Your task to perform on an android device: Empty the shopping cart on ebay.com. Search for usb-c to usb-a on ebay.com, select the first entry, add it to the cart, then select checkout. Image 0: 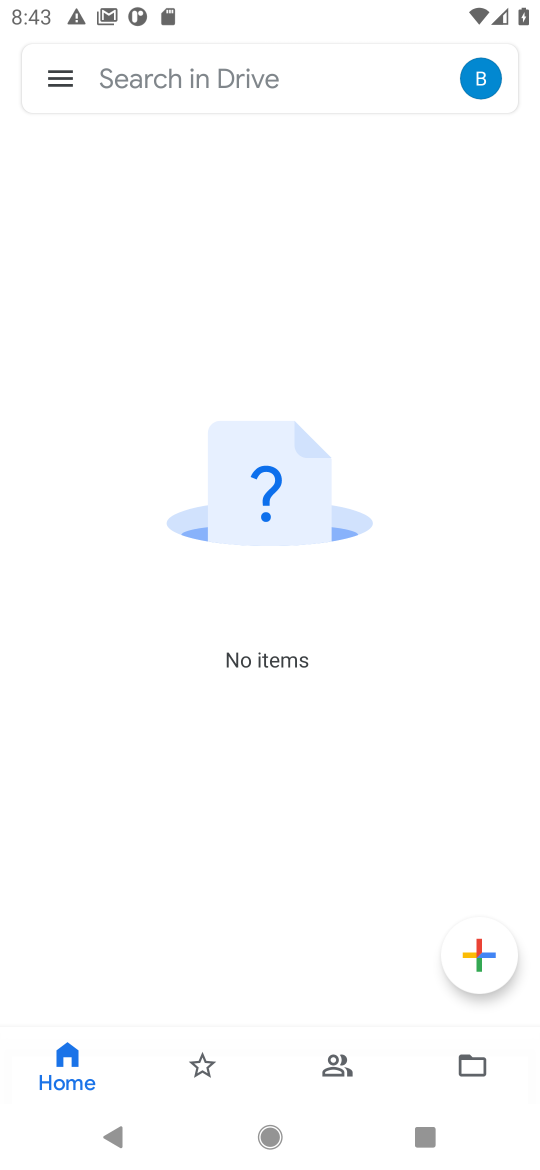
Step 0: press home button
Your task to perform on an android device: Empty the shopping cart on ebay.com. Search for usb-c to usb-a on ebay.com, select the first entry, add it to the cart, then select checkout. Image 1: 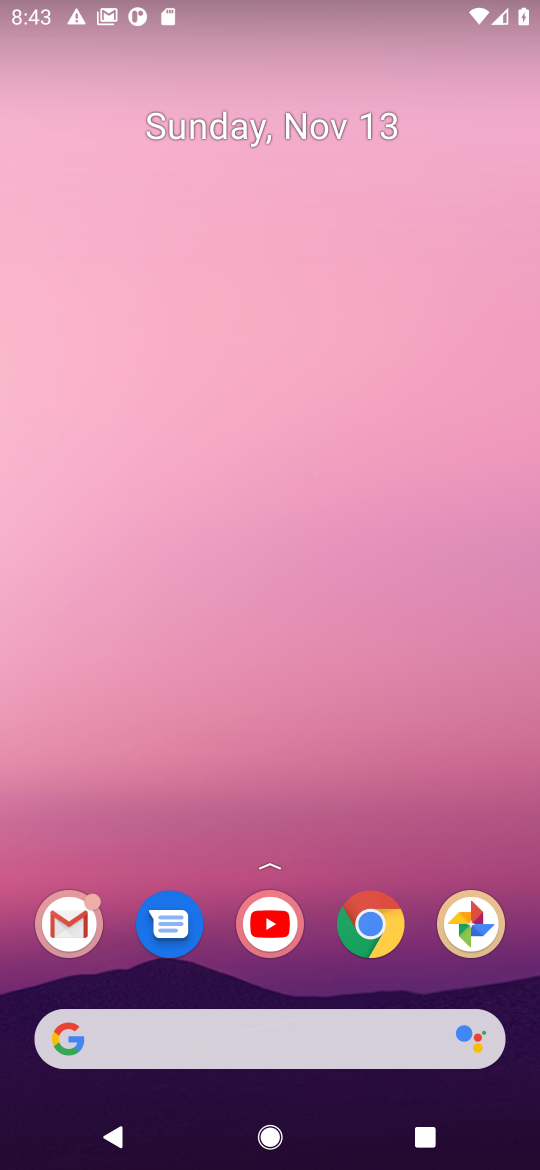
Step 1: click (356, 925)
Your task to perform on an android device: Empty the shopping cart on ebay.com. Search for usb-c to usb-a on ebay.com, select the first entry, add it to the cart, then select checkout. Image 2: 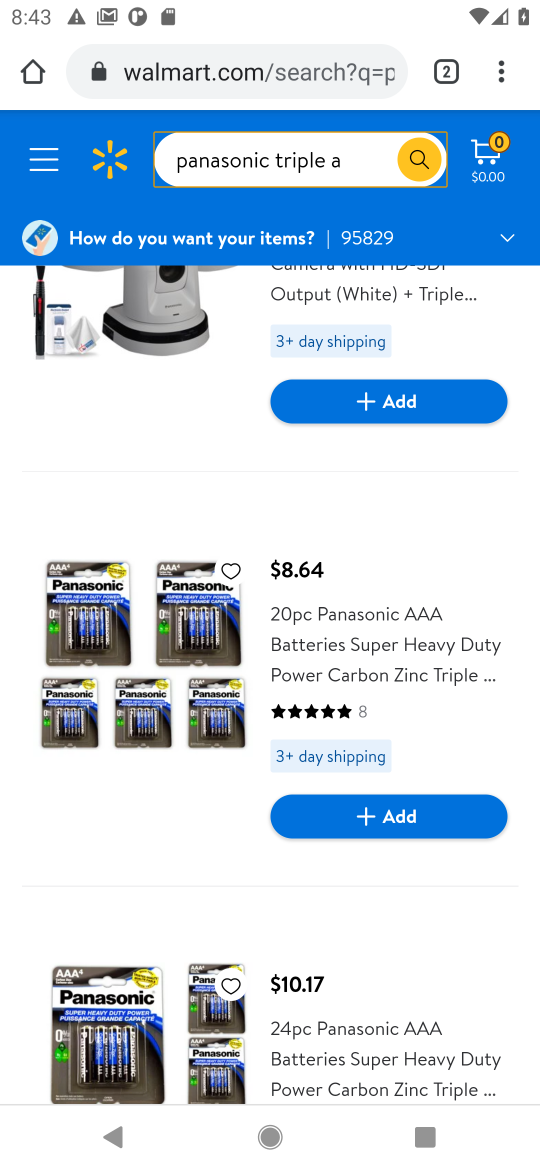
Step 2: click (233, 82)
Your task to perform on an android device: Empty the shopping cart on ebay.com. Search for usb-c to usb-a on ebay.com, select the first entry, add it to the cart, then select checkout. Image 3: 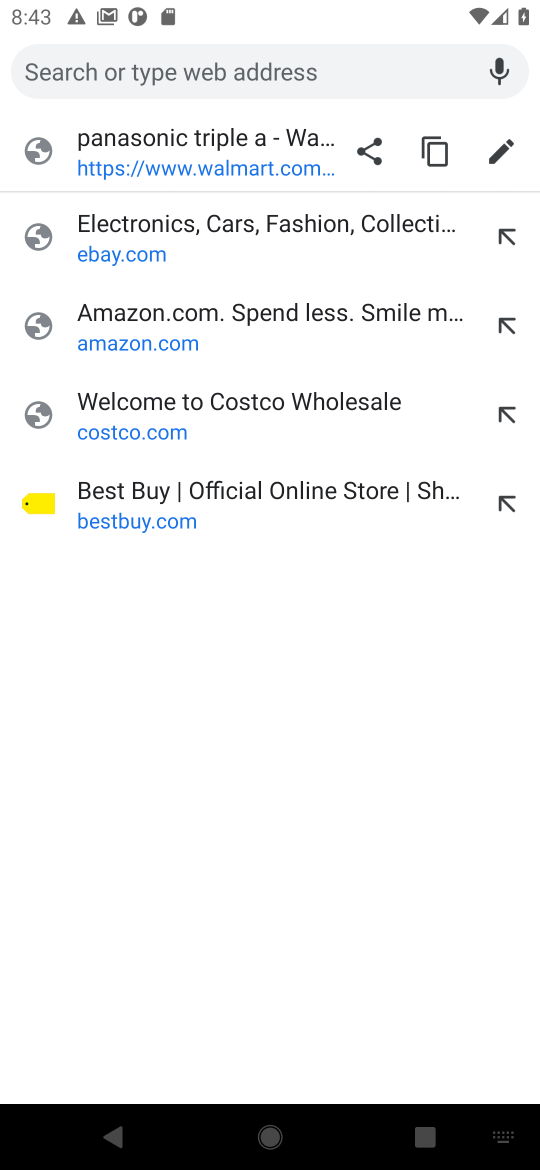
Step 3: click (129, 255)
Your task to perform on an android device: Empty the shopping cart on ebay.com. Search for usb-c to usb-a on ebay.com, select the first entry, add it to the cart, then select checkout. Image 4: 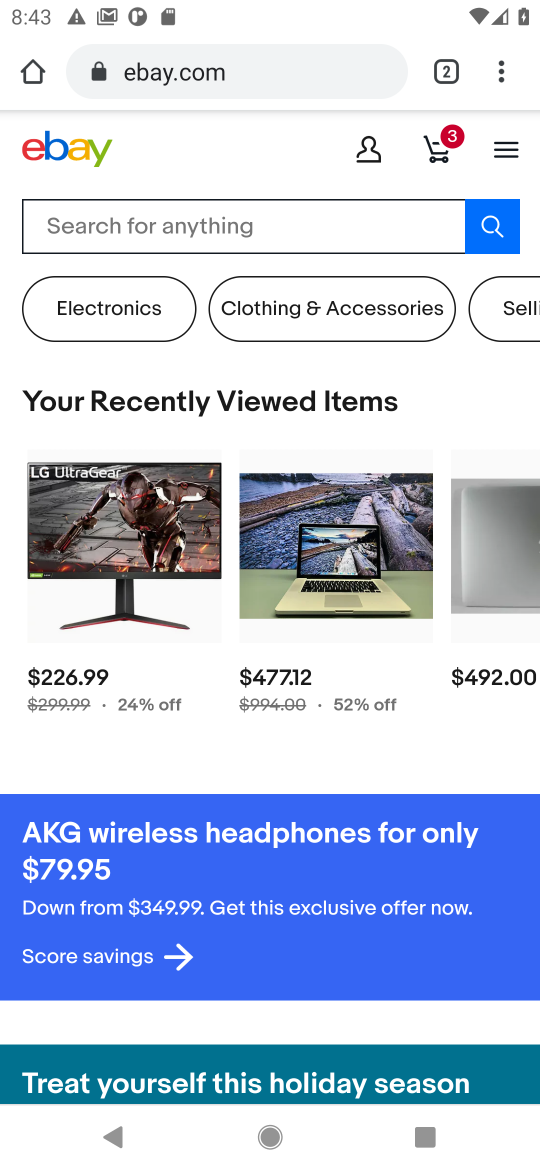
Step 4: click (434, 153)
Your task to perform on an android device: Empty the shopping cart on ebay.com. Search for usb-c to usb-a on ebay.com, select the first entry, add it to the cart, then select checkout. Image 5: 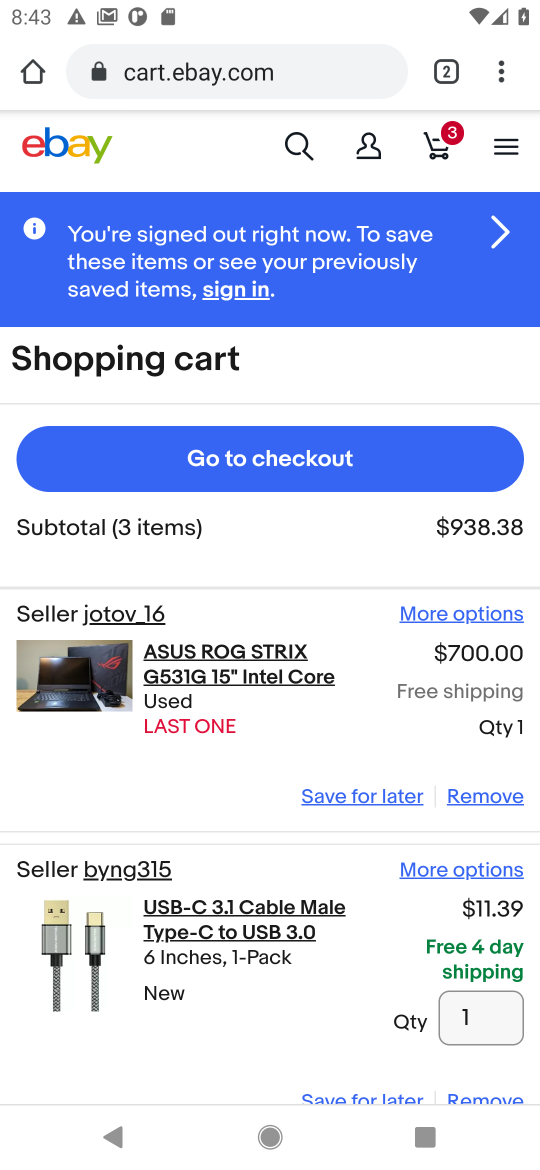
Step 5: click (476, 802)
Your task to perform on an android device: Empty the shopping cart on ebay.com. Search for usb-c to usb-a on ebay.com, select the first entry, add it to the cart, then select checkout. Image 6: 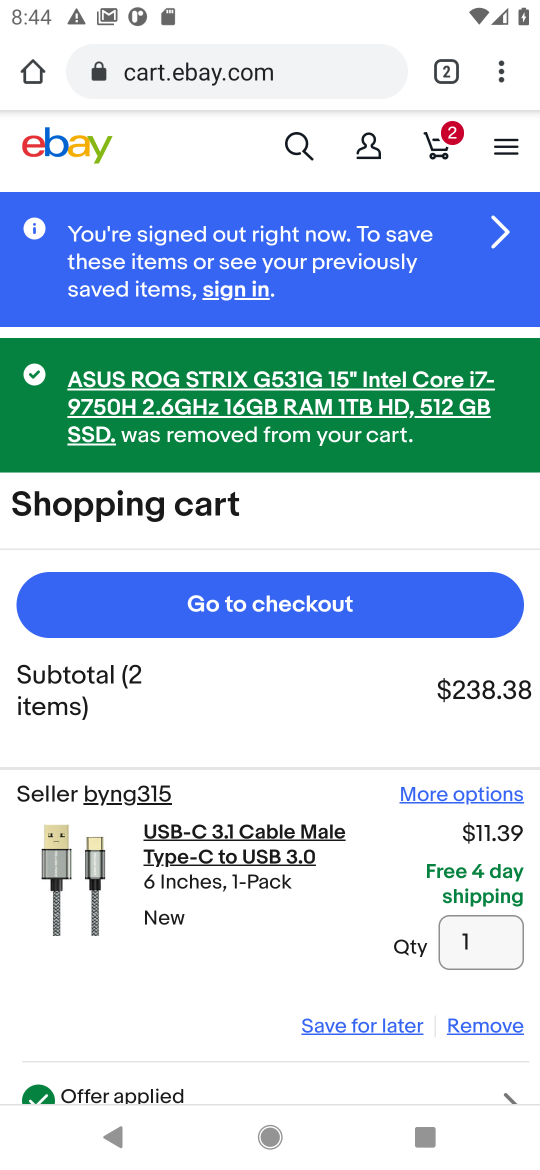
Step 6: click (474, 1018)
Your task to perform on an android device: Empty the shopping cart on ebay.com. Search for usb-c to usb-a on ebay.com, select the first entry, add it to the cart, then select checkout. Image 7: 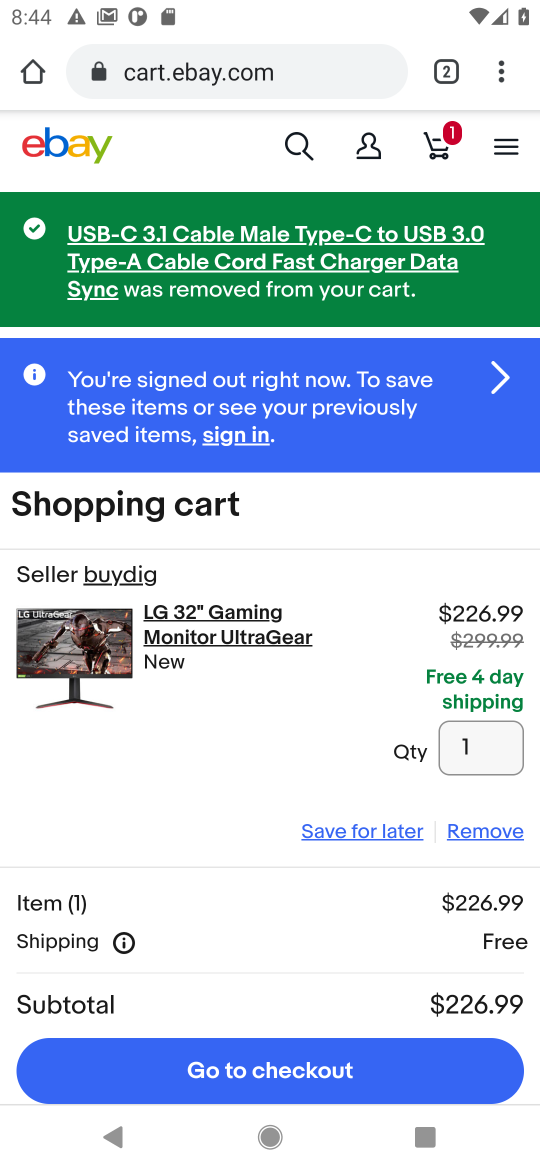
Step 7: click (485, 834)
Your task to perform on an android device: Empty the shopping cart on ebay.com. Search for usb-c to usb-a on ebay.com, select the first entry, add it to the cart, then select checkout. Image 8: 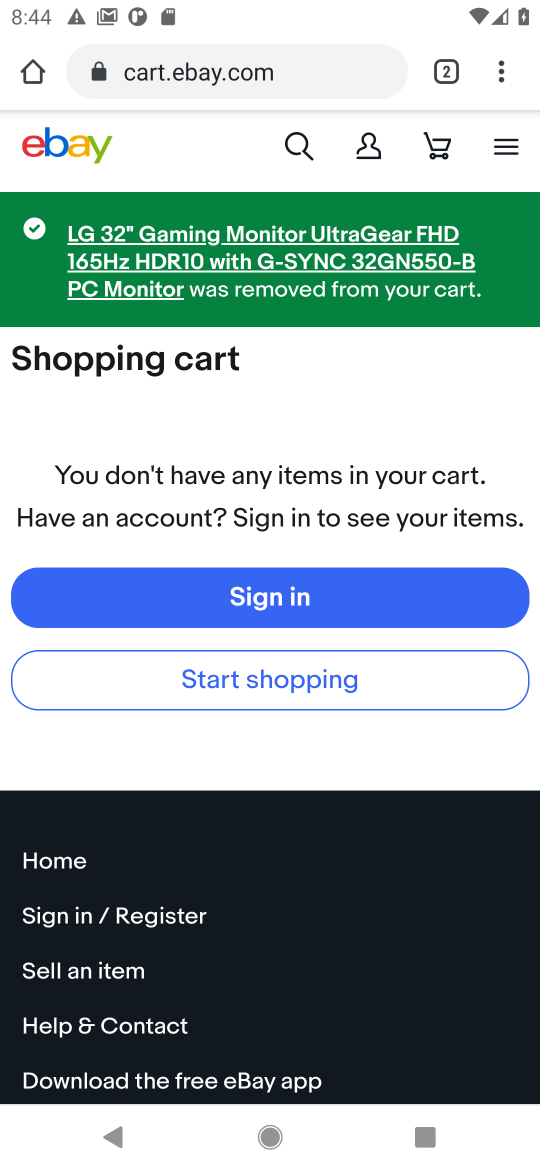
Step 8: click (302, 148)
Your task to perform on an android device: Empty the shopping cart on ebay.com. Search for usb-c to usb-a on ebay.com, select the first entry, add it to the cart, then select checkout. Image 9: 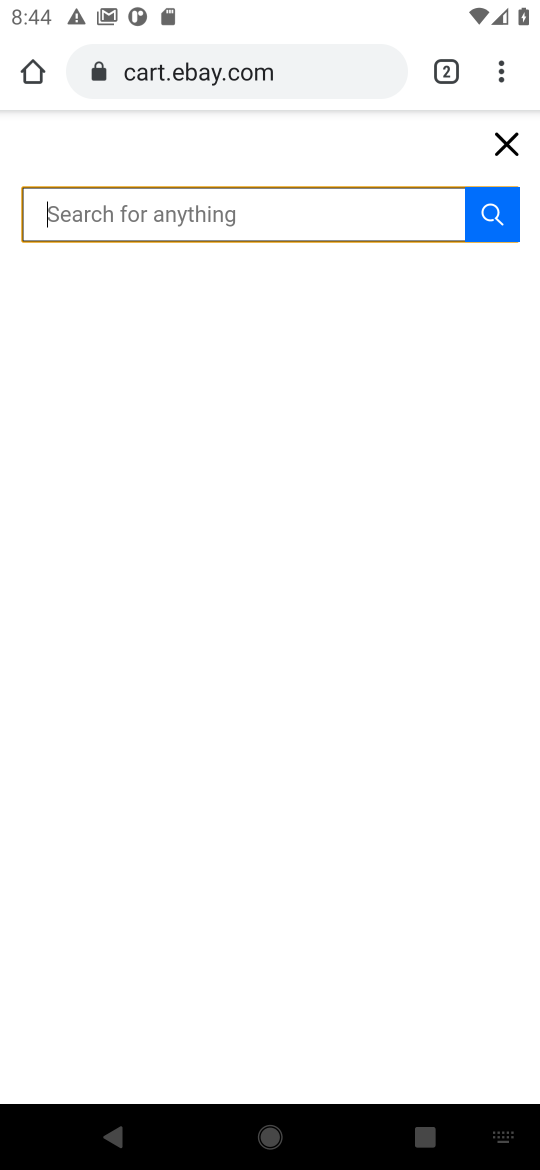
Step 9: type " usb-c to usb-a"
Your task to perform on an android device: Empty the shopping cart on ebay.com. Search for usb-c to usb-a on ebay.com, select the first entry, add it to the cart, then select checkout. Image 10: 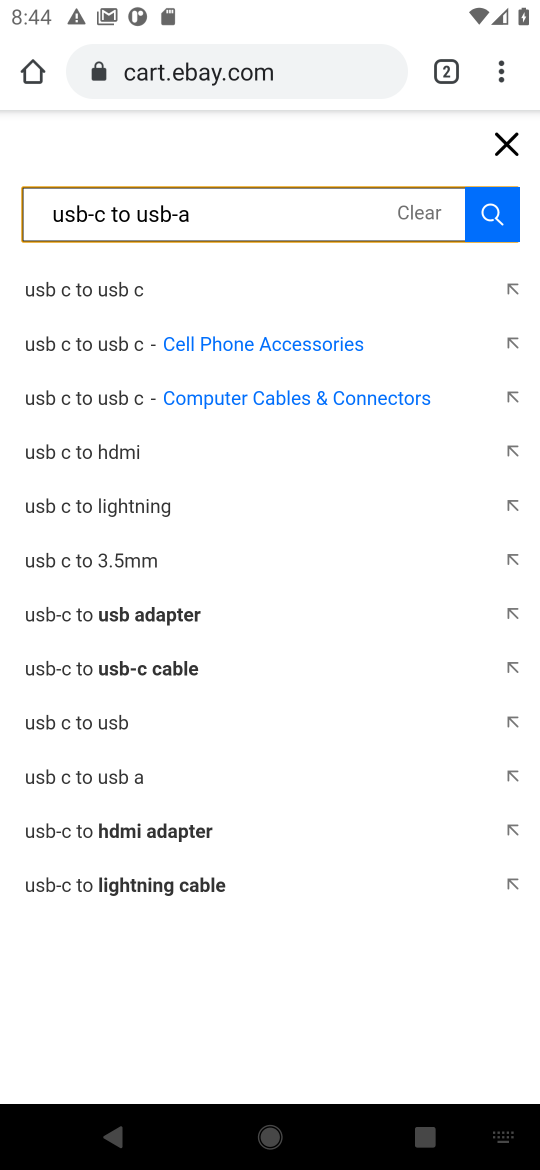
Step 10: click (123, 784)
Your task to perform on an android device: Empty the shopping cart on ebay.com. Search for usb-c to usb-a on ebay.com, select the first entry, add it to the cart, then select checkout. Image 11: 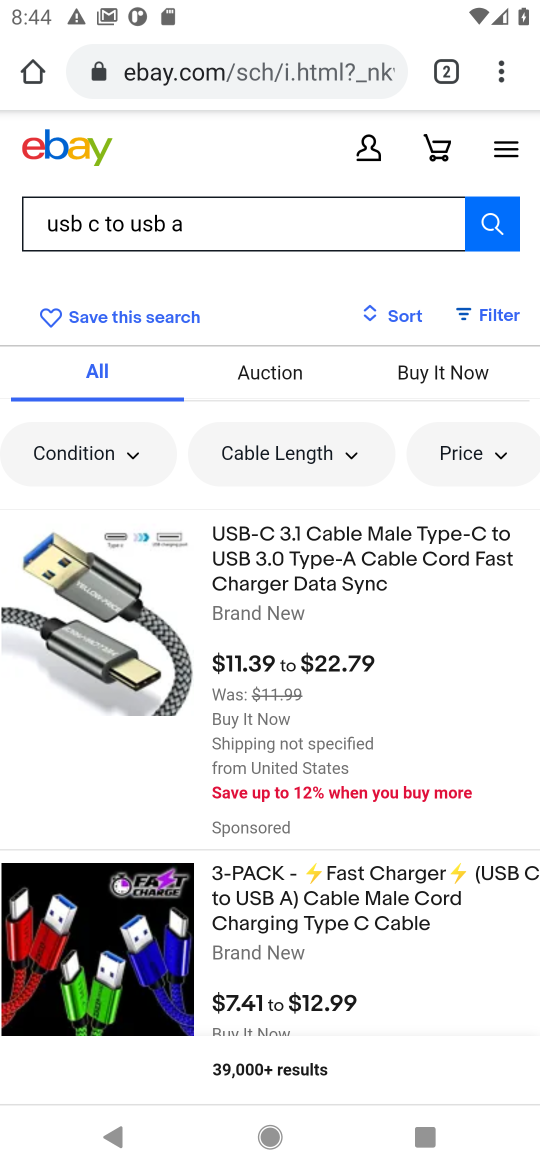
Step 11: click (94, 639)
Your task to perform on an android device: Empty the shopping cart on ebay.com. Search for usb-c to usb-a on ebay.com, select the first entry, add it to the cart, then select checkout. Image 12: 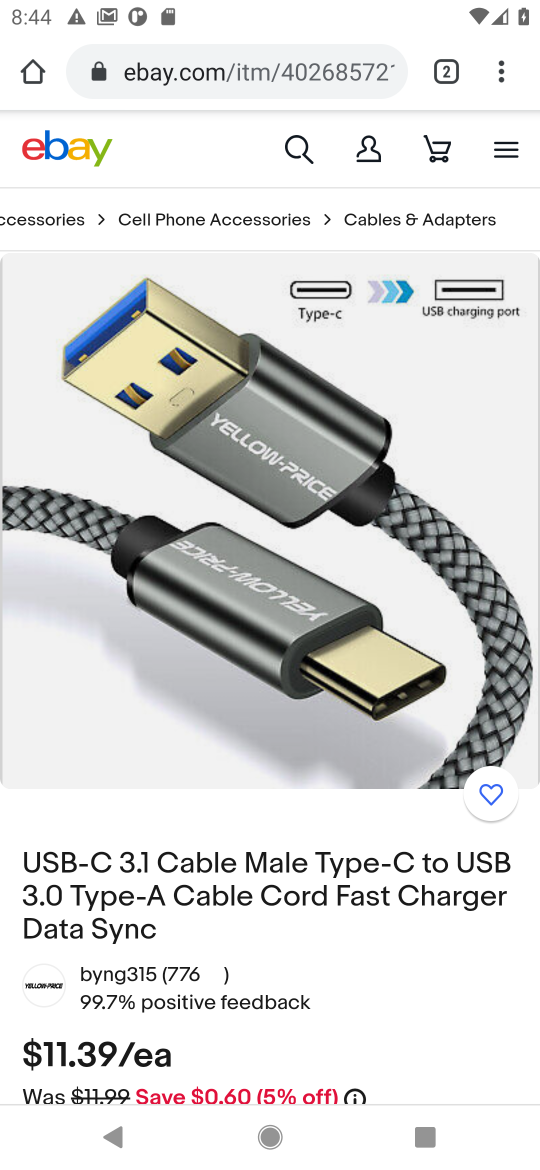
Step 12: drag from (366, 729) to (330, 215)
Your task to perform on an android device: Empty the shopping cart on ebay.com. Search for usb-c to usb-a on ebay.com, select the first entry, add it to the cart, then select checkout. Image 13: 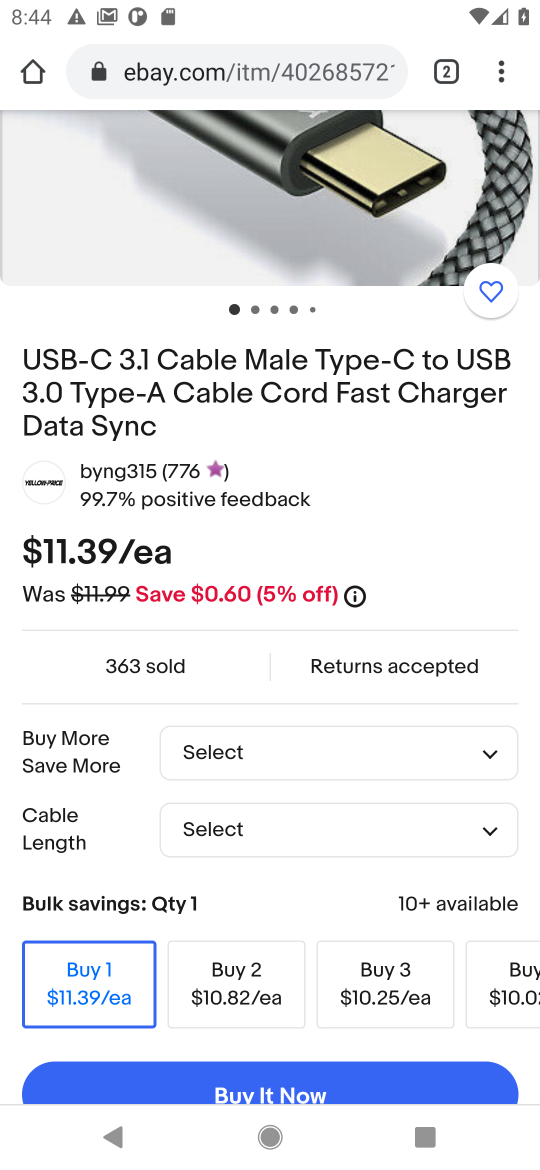
Step 13: drag from (300, 682) to (264, 280)
Your task to perform on an android device: Empty the shopping cart on ebay.com. Search for usb-c to usb-a on ebay.com, select the first entry, add it to the cart, then select checkout. Image 14: 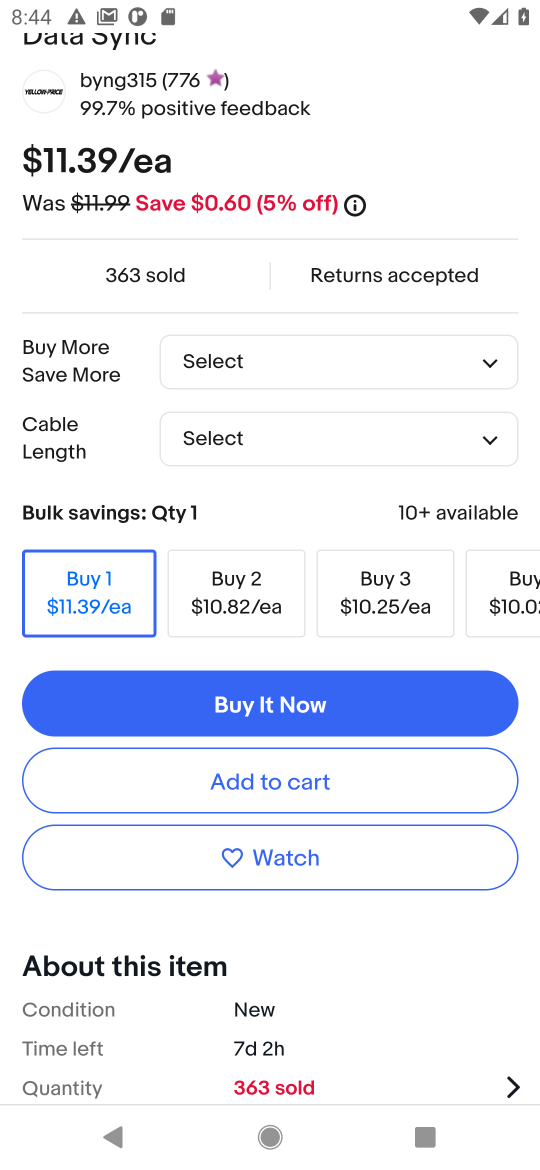
Step 14: click (482, 366)
Your task to perform on an android device: Empty the shopping cart on ebay.com. Search for usb-c to usb-a on ebay.com, select the first entry, add it to the cart, then select checkout. Image 15: 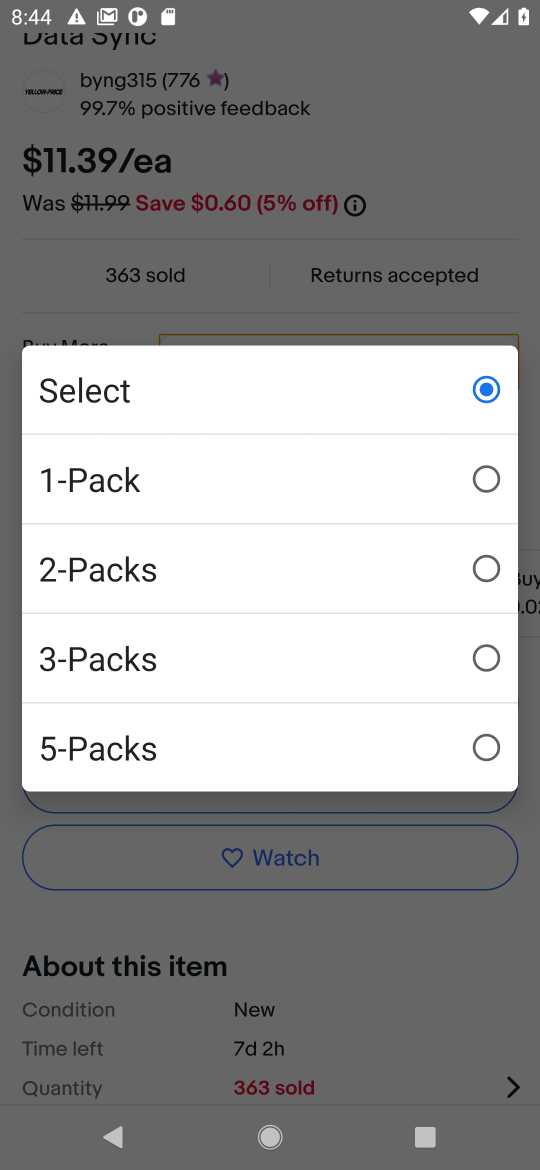
Step 15: click (122, 492)
Your task to perform on an android device: Empty the shopping cart on ebay.com. Search for usb-c to usb-a on ebay.com, select the first entry, add it to the cart, then select checkout. Image 16: 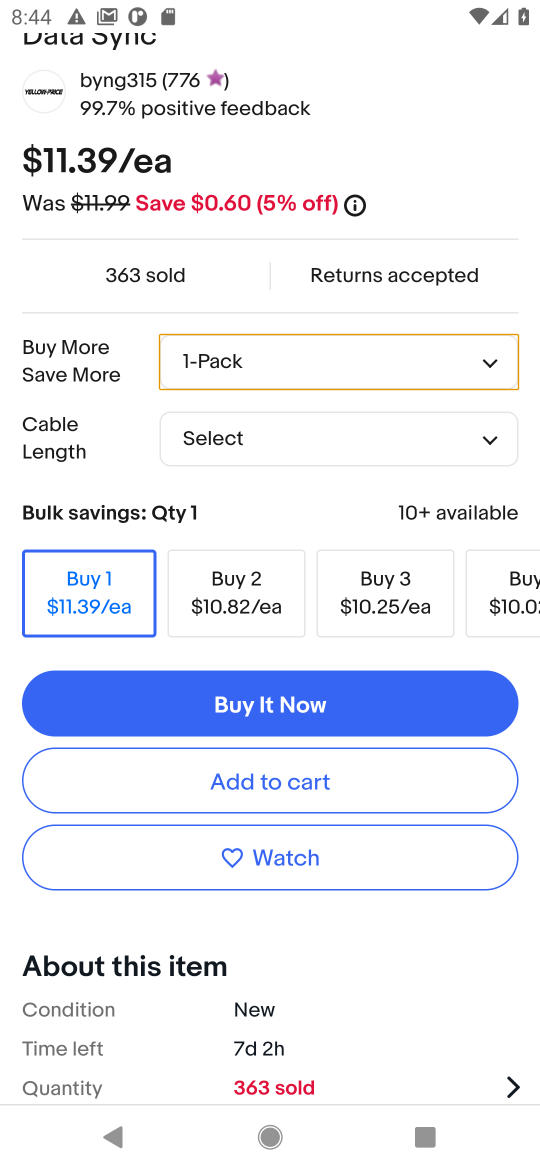
Step 16: click (486, 443)
Your task to perform on an android device: Empty the shopping cart on ebay.com. Search for usb-c to usb-a on ebay.com, select the first entry, add it to the cart, then select checkout. Image 17: 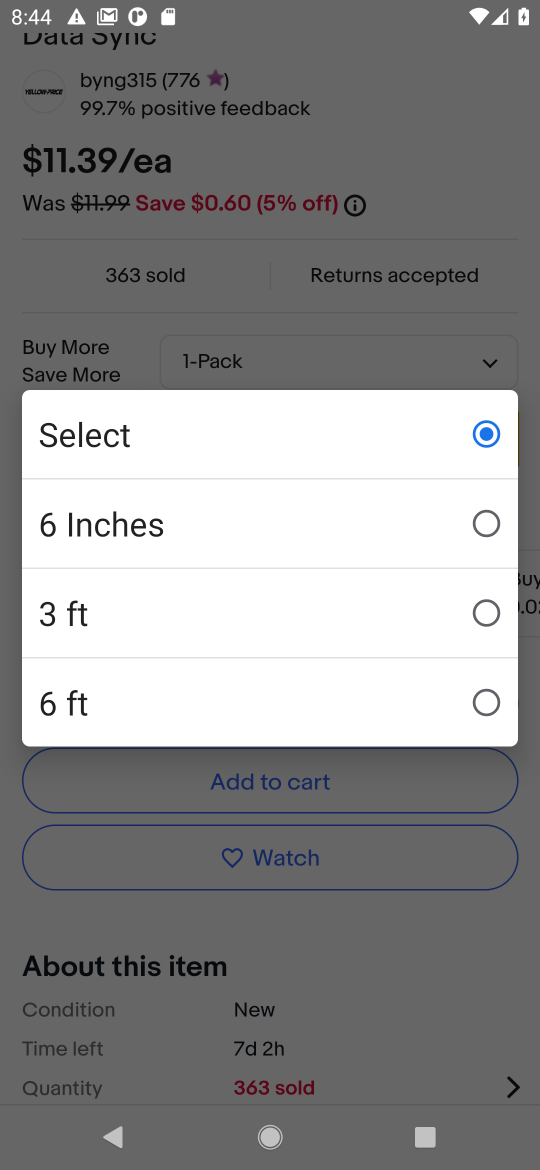
Step 17: click (72, 529)
Your task to perform on an android device: Empty the shopping cart on ebay.com. Search for usb-c to usb-a on ebay.com, select the first entry, add it to the cart, then select checkout. Image 18: 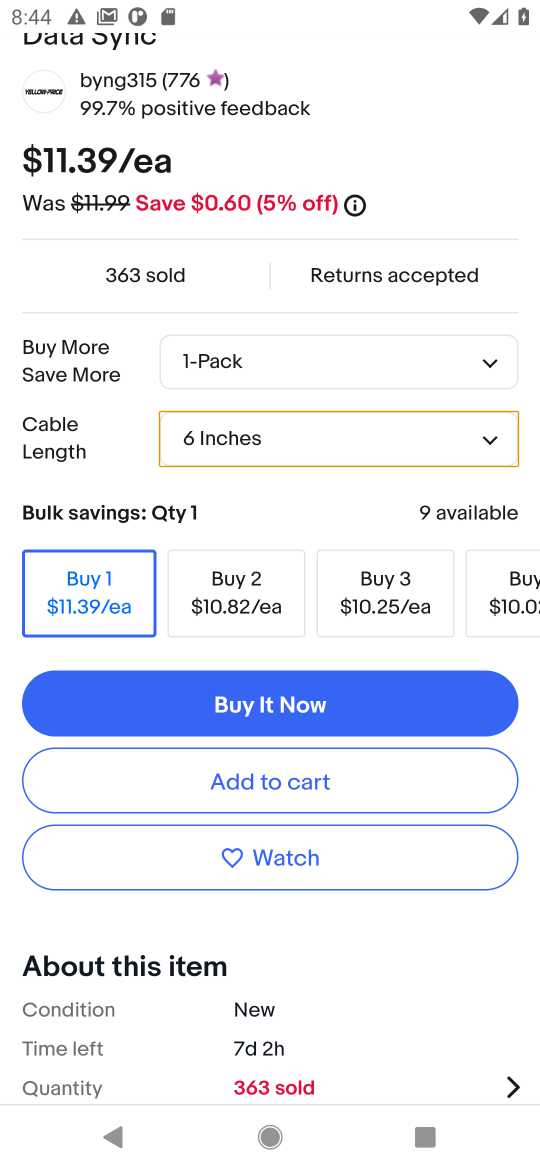
Step 18: click (275, 785)
Your task to perform on an android device: Empty the shopping cart on ebay.com. Search for usb-c to usb-a on ebay.com, select the first entry, add it to the cart, then select checkout. Image 19: 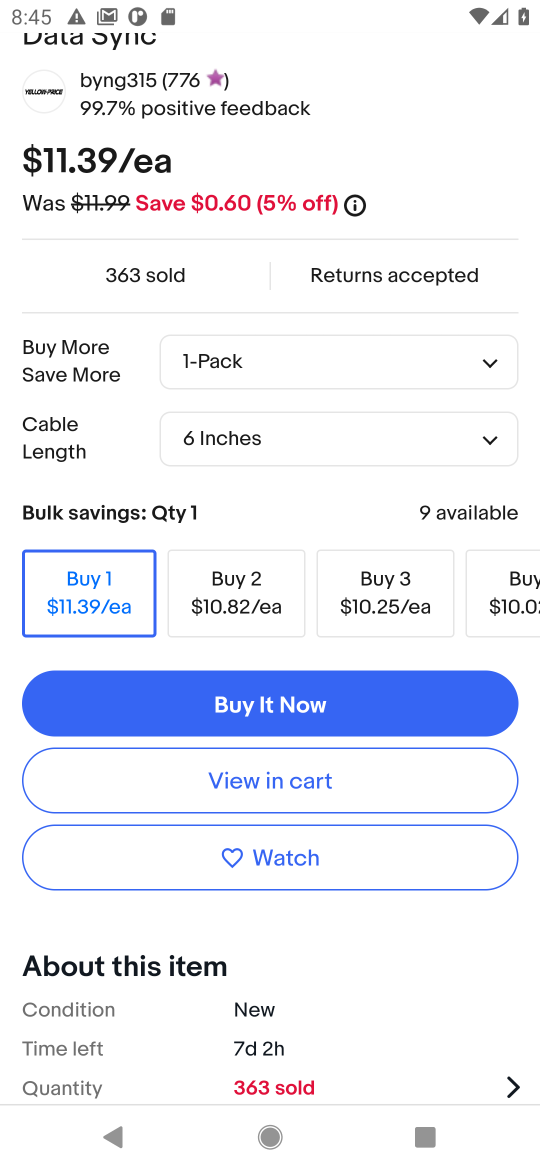
Step 19: click (275, 785)
Your task to perform on an android device: Empty the shopping cart on ebay.com. Search for usb-c to usb-a on ebay.com, select the first entry, add it to the cart, then select checkout. Image 20: 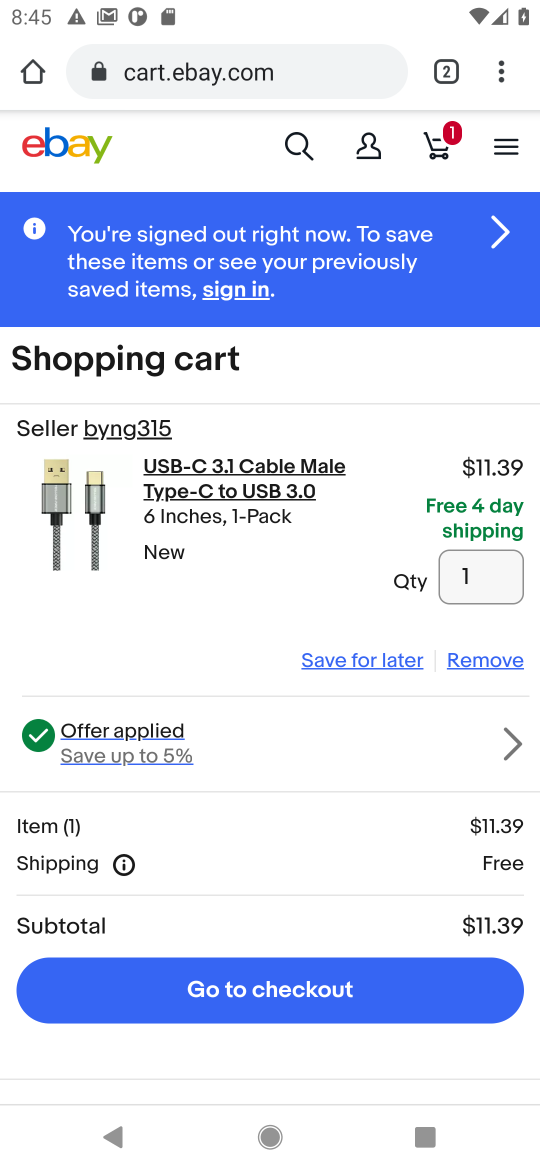
Step 20: click (242, 992)
Your task to perform on an android device: Empty the shopping cart on ebay.com. Search for usb-c to usb-a on ebay.com, select the first entry, add it to the cart, then select checkout. Image 21: 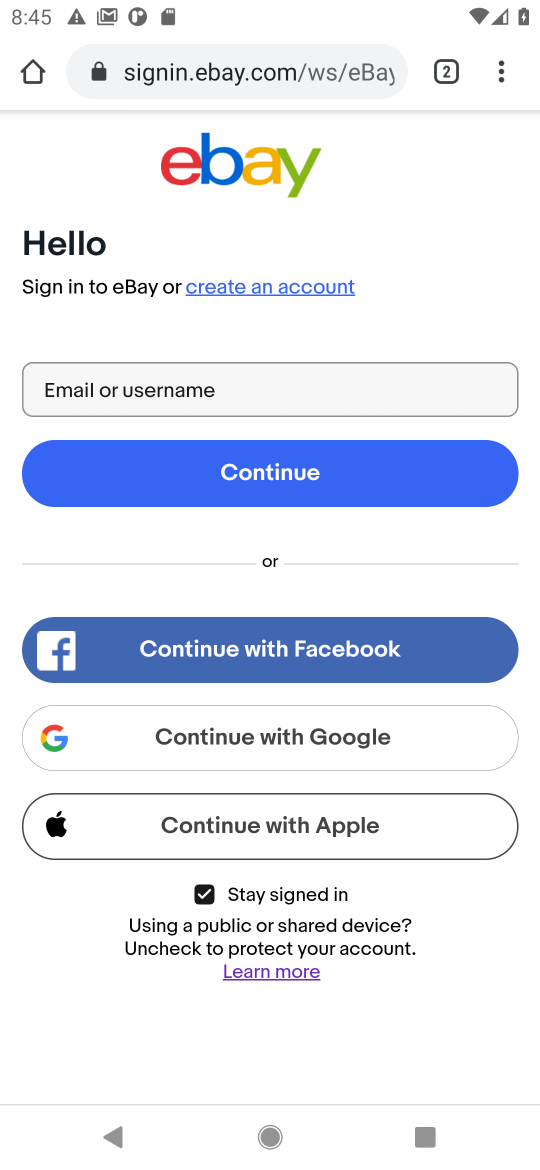
Step 21: task complete